Your task to perform on an android device: turn off data saver in the chrome app Image 0: 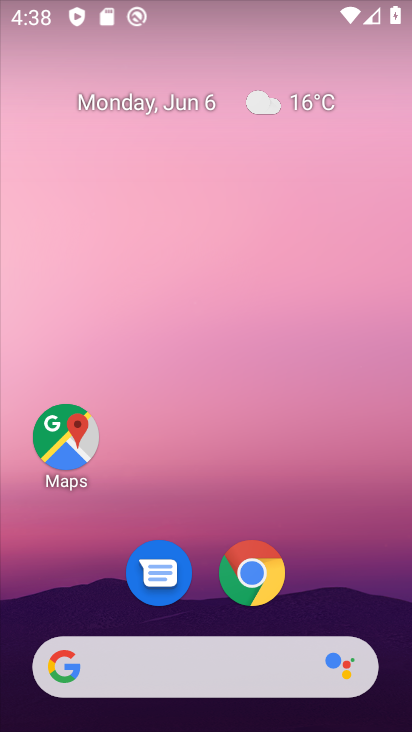
Step 0: click (255, 576)
Your task to perform on an android device: turn off data saver in the chrome app Image 1: 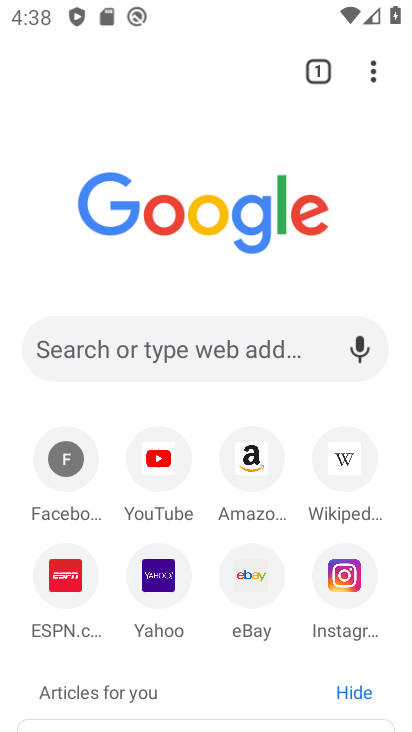
Step 1: click (372, 72)
Your task to perform on an android device: turn off data saver in the chrome app Image 2: 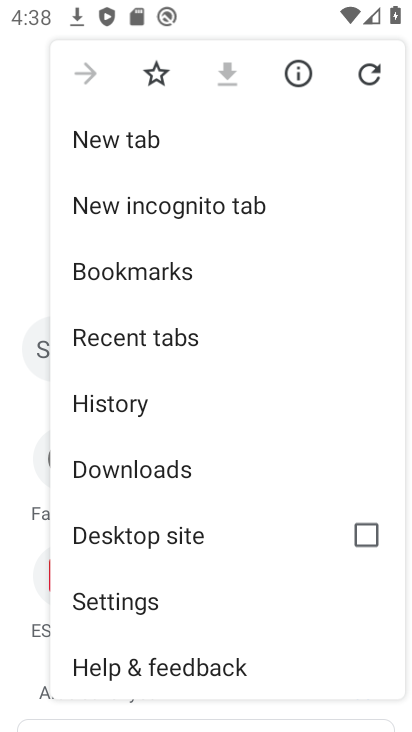
Step 2: click (111, 606)
Your task to perform on an android device: turn off data saver in the chrome app Image 3: 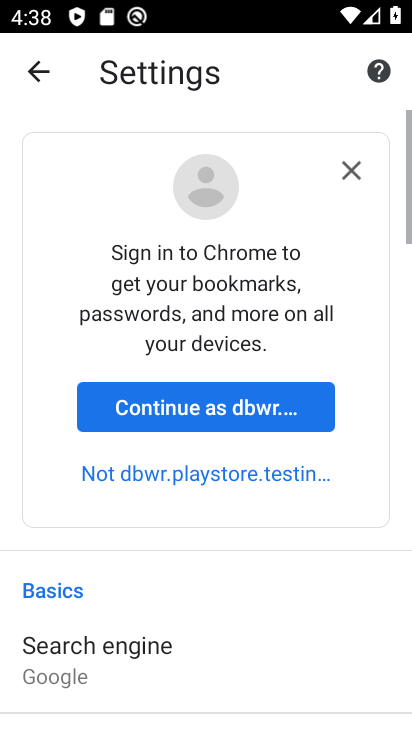
Step 3: drag from (222, 673) to (319, 193)
Your task to perform on an android device: turn off data saver in the chrome app Image 4: 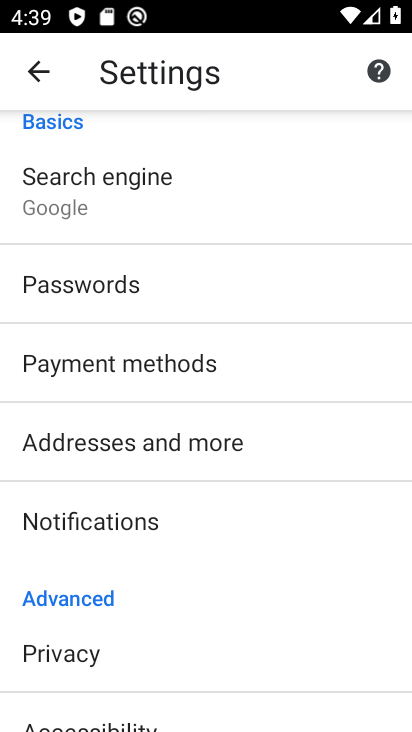
Step 4: drag from (199, 613) to (298, 197)
Your task to perform on an android device: turn off data saver in the chrome app Image 5: 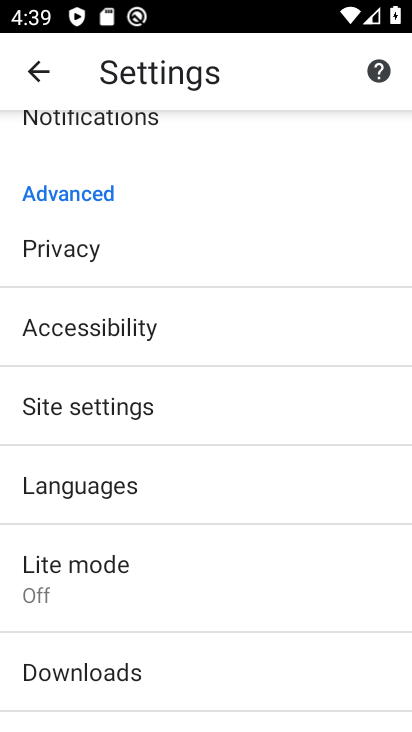
Step 5: click (107, 558)
Your task to perform on an android device: turn off data saver in the chrome app Image 6: 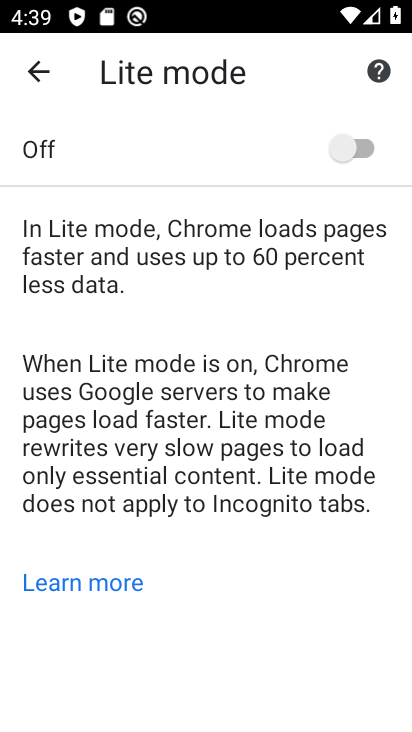
Step 6: task complete